Your task to perform on an android device: Go to privacy settings Image 0: 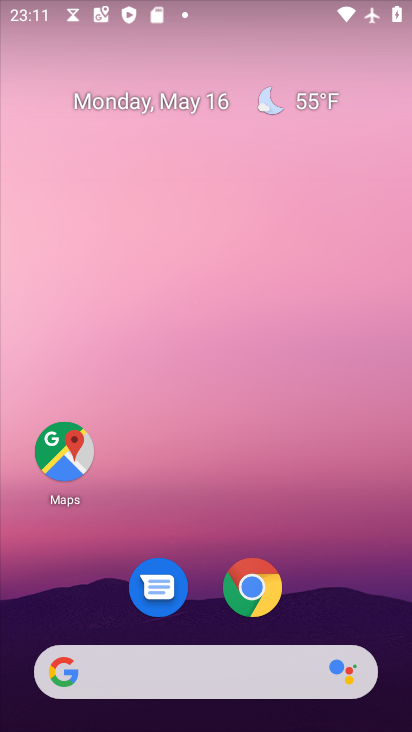
Step 0: drag from (351, 571) to (245, 38)
Your task to perform on an android device: Go to privacy settings Image 1: 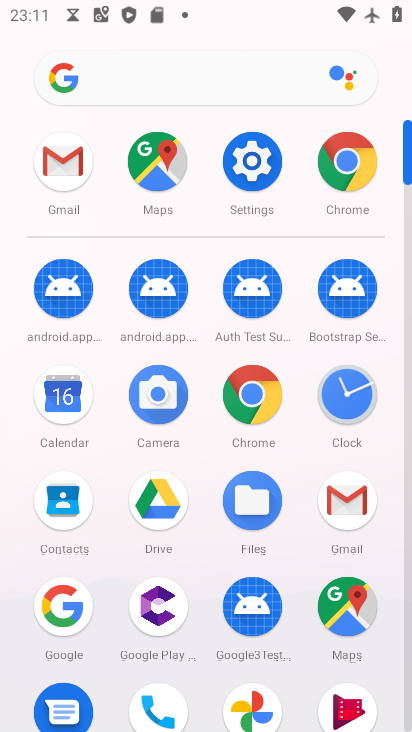
Step 1: click (351, 155)
Your task to perform on an android device: Go to privacy settings Image 2: 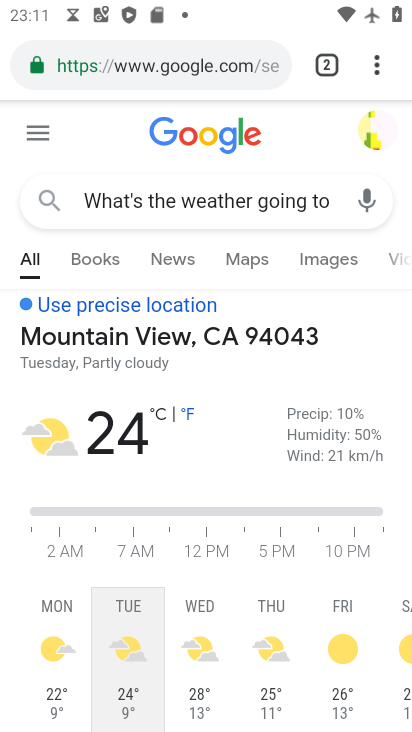
Step 2: drag from (376, 60) to (139, 638)
Your task to perform on an android device: Go to privacy settings Image 3: 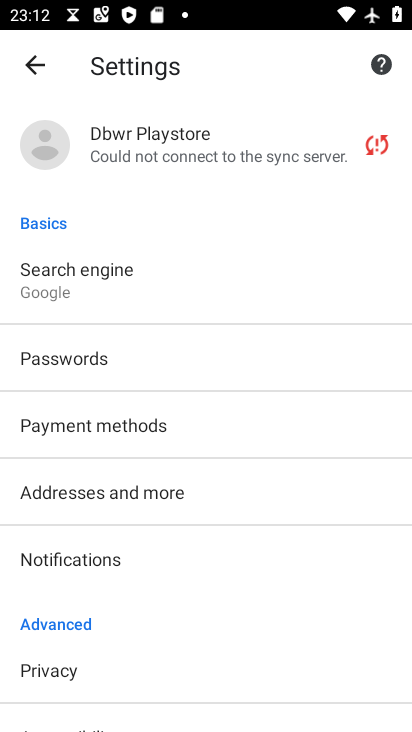
Step 3: click (81, 662)
Your task to perform on an android device: Go to privacy settings Image 4: 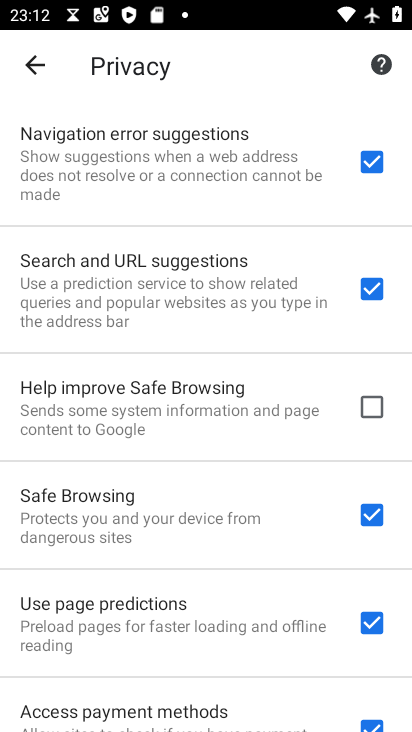
Step 4: task complete